Your task to perform on an android device: toggle notification dots Image 0: 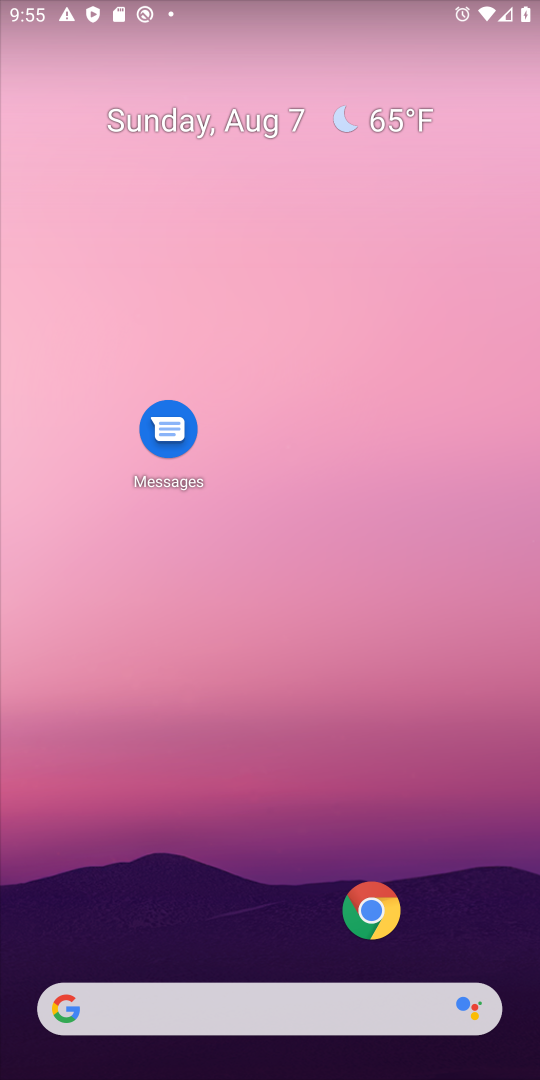
Step 0: drag from (226, 963) to (227, 464)
Your task to perform on an android device: toggle notification dots Image 1: 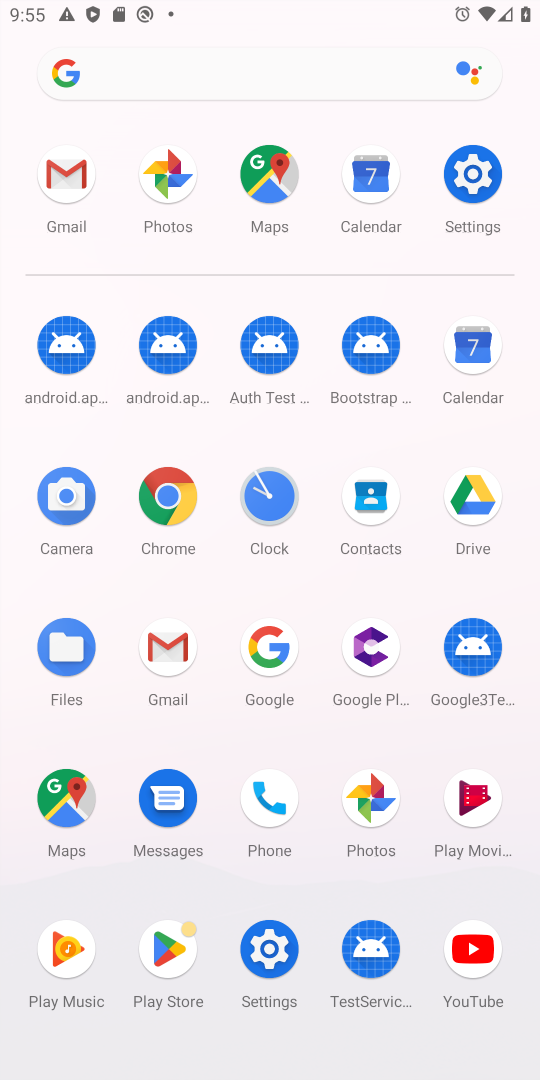
Step 1: click (475, 160)
Your task to perform on an android device: toggle notification dots Image 2: 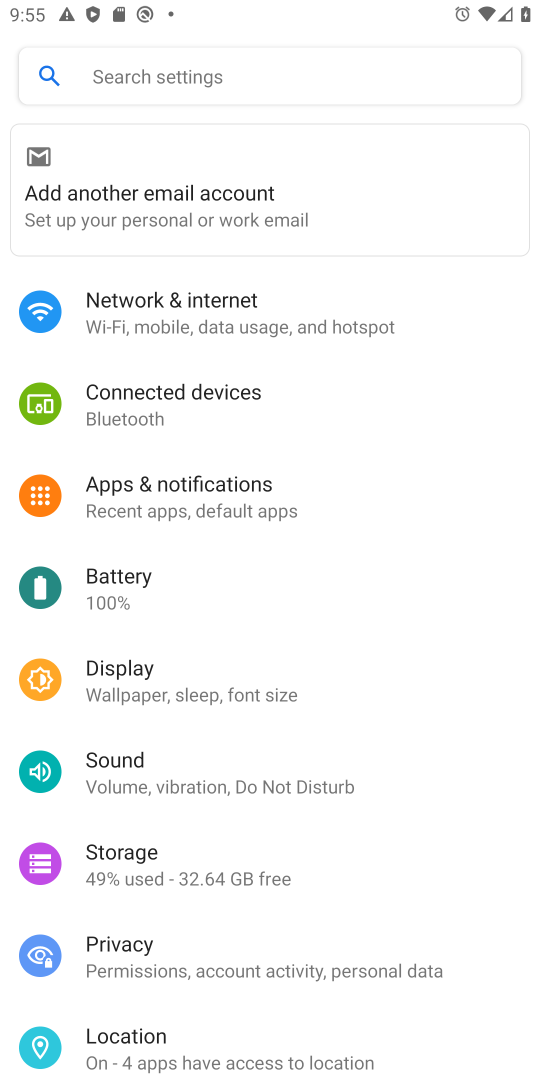
Step 2: click (194, 504)
Your task to perform on an android device: toggle notification dots Image 3: 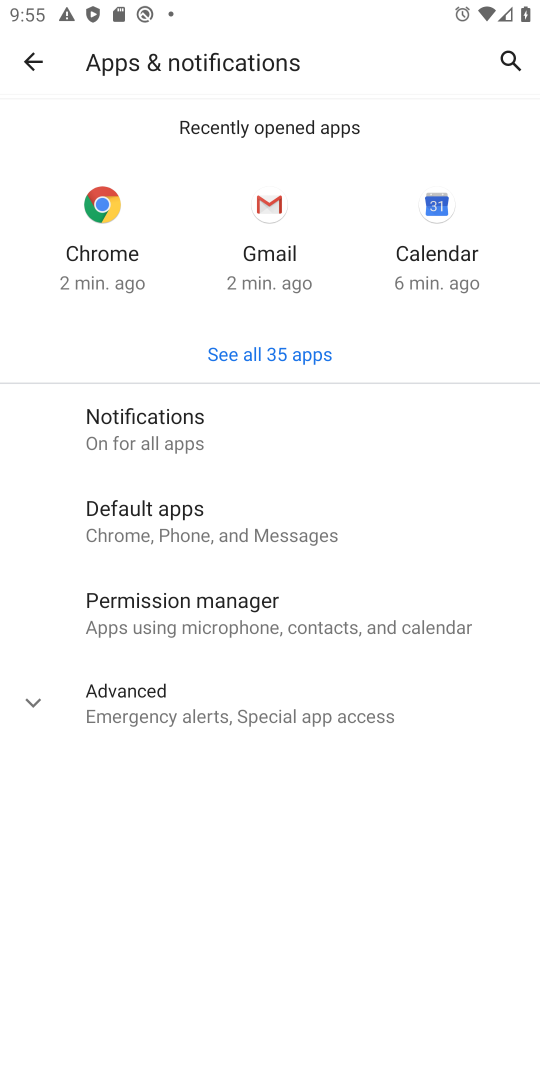
Step 3: click (175, 432)
Your task to perform on an android device: toggle notification dots Image 4: 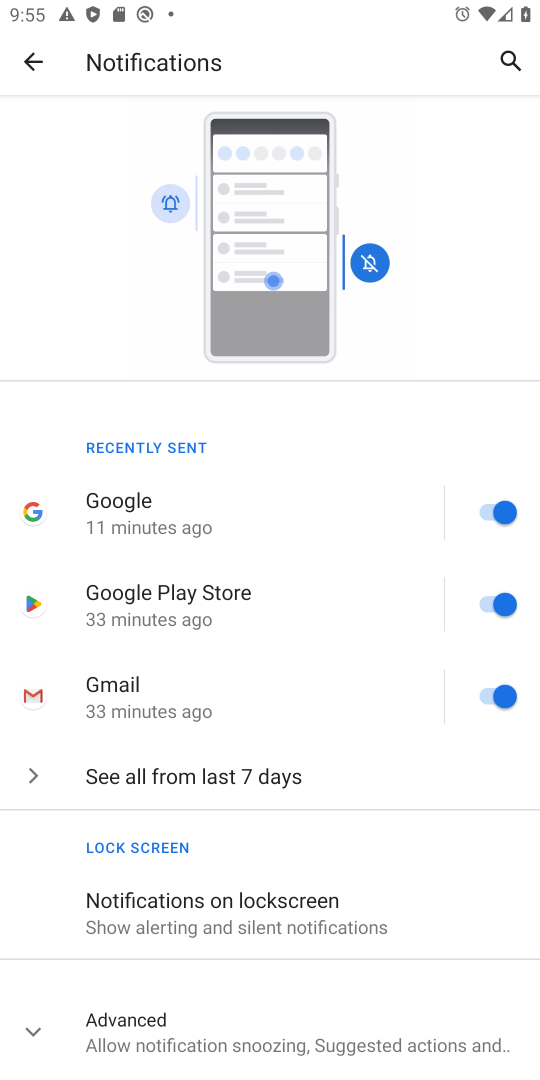
Step 4: drag from (130, 826) to (142, 497)
Your task to perform on an android device: toggle notification dots Image 5: 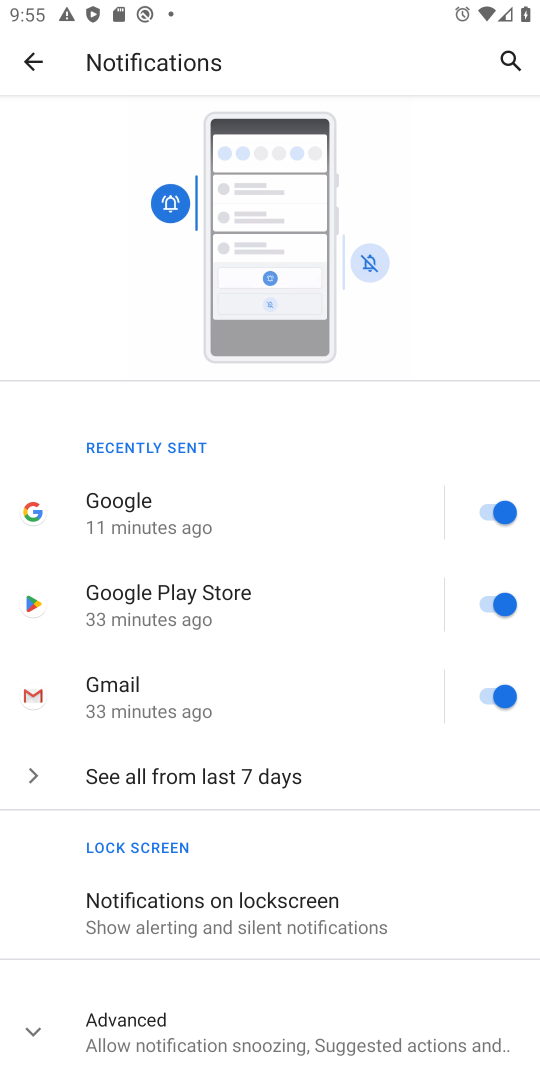
Step 5: click (95, 1025)
Your task to perform on an android device: toggle notification dots Image 6: 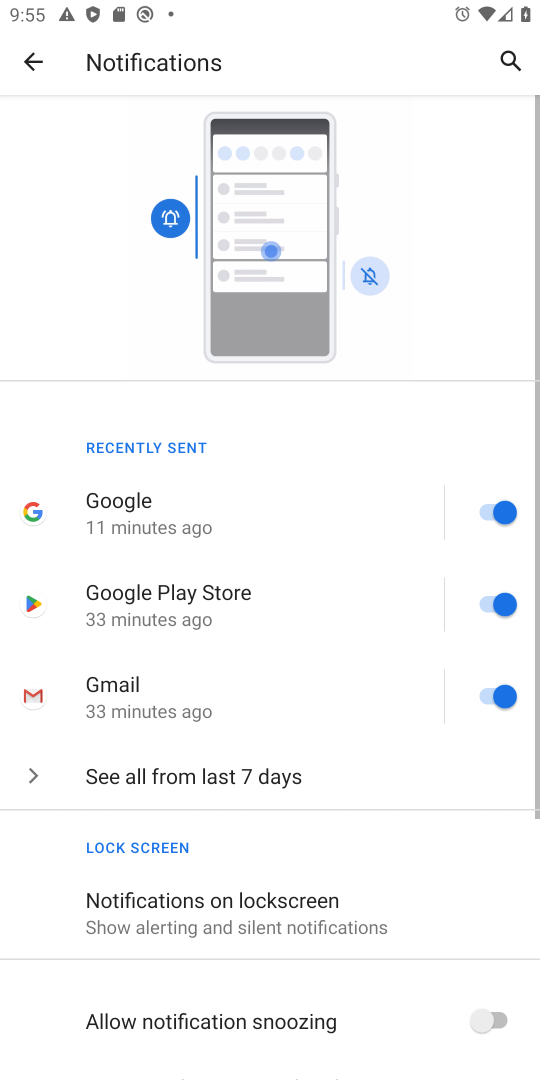
Step 6: drag from (226, 918) to (233, 443)
Your task to perform on an android device: toggle notification dots Image 7: 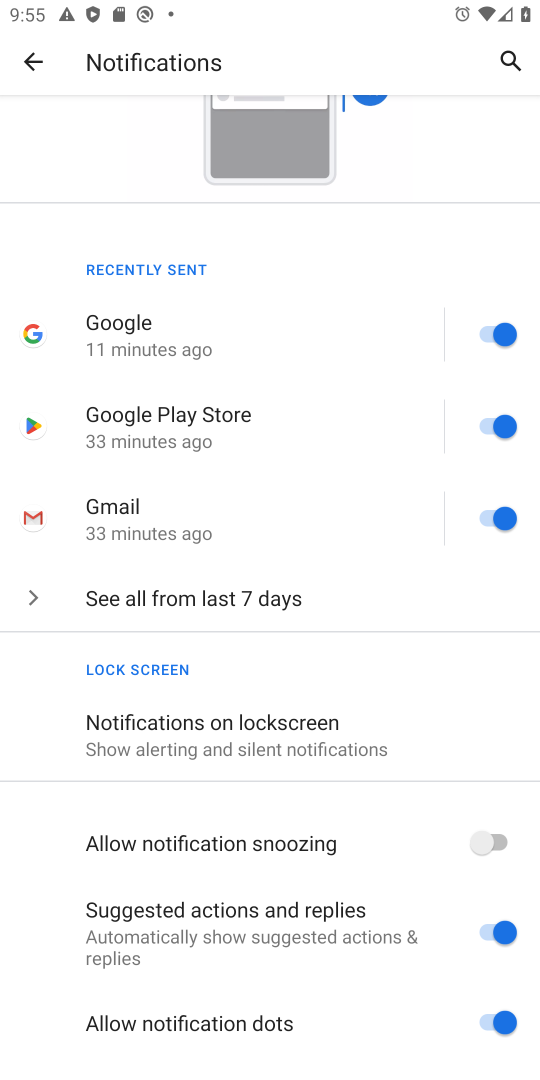
Step 7: click (490, 1026)
Your task to perform on an android device: toggle notification dots Image 8: 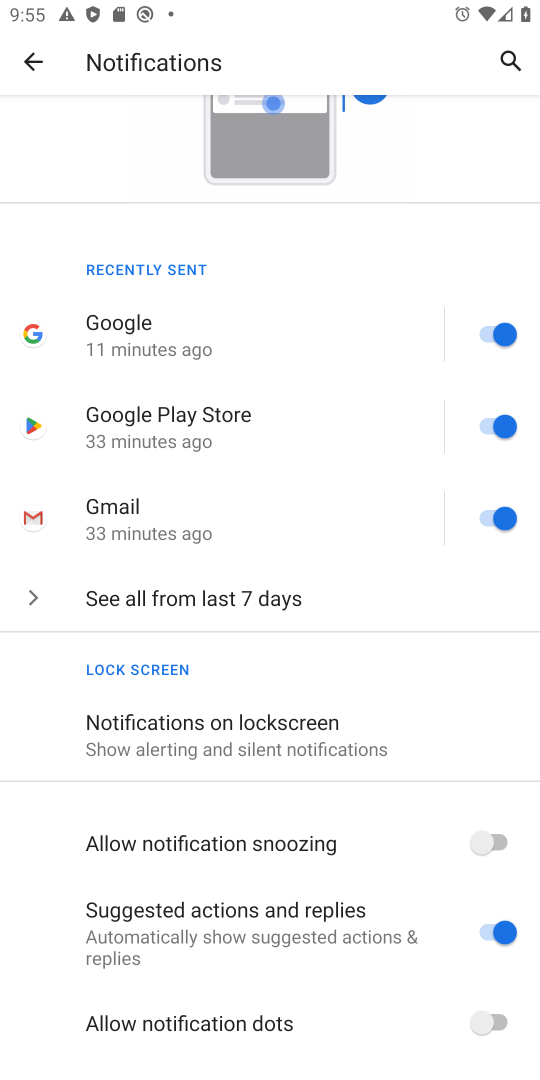
Step 8: task complete